Your task to perform on an android device: Open location settings Image 0: 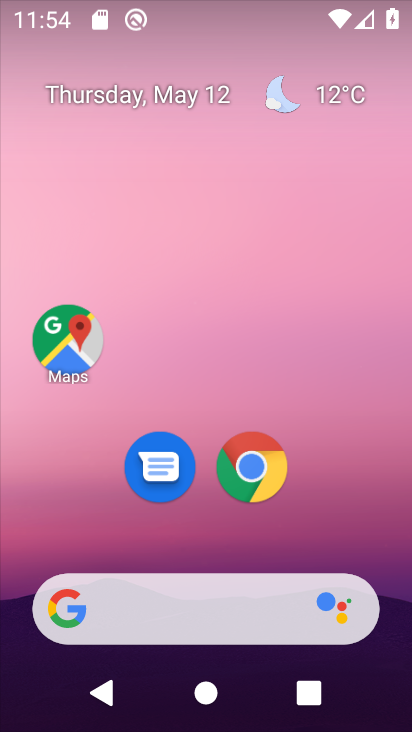
Step 0: drag from (306, 442) to (200, 52)
Your task to perform on an android device: Open location settings Image 1: 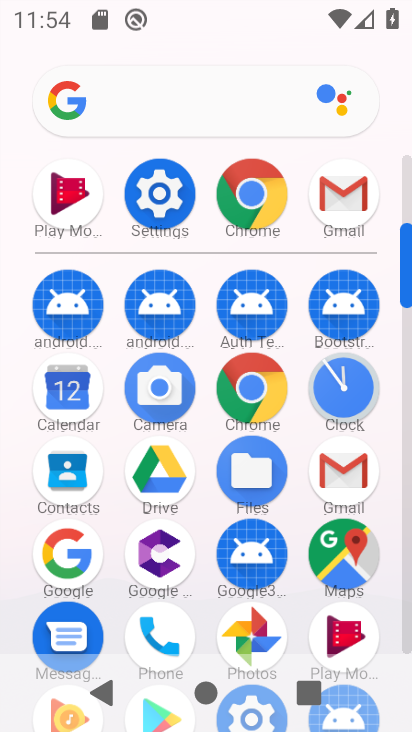
Step 1: click (142, 191)
Your task to perform on an android device: Open location settings Image 2: 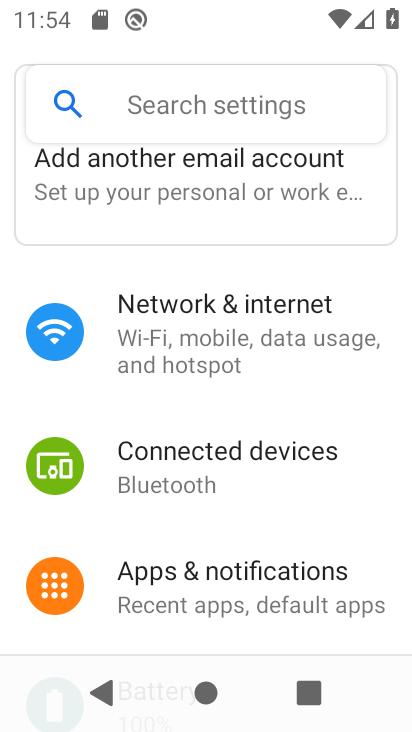
Step 2: drag from (221, 541) to (213, 166)
Your task to perform on an android device: Open location settings Image 3: 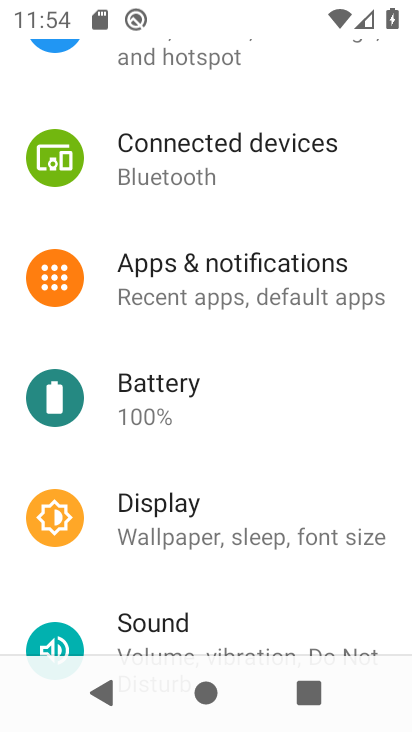
Step 3: drag from (253, 524) to (221, 157)
Your task to perform on an android device: Open location settings Image 4: 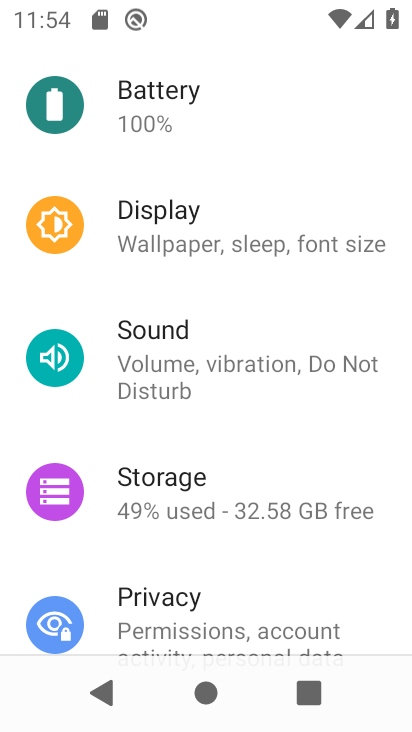
Step 4: drag from (232, 567) to (207, 177)
Your task to perform on an android device: Open location settings Image 5: 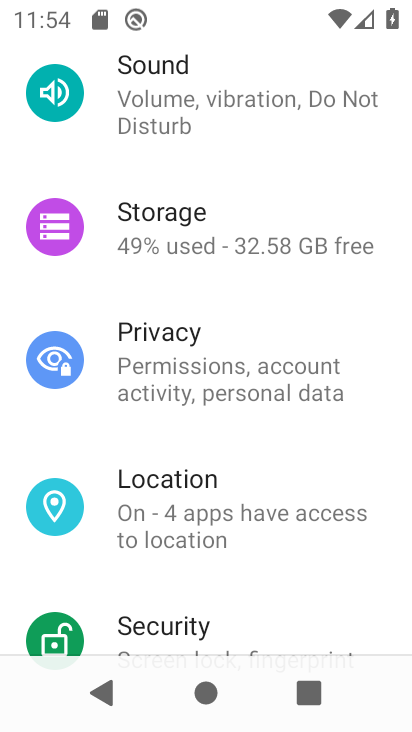
Step 5: click (226, 513)
Your task to perform on an android device: Open location settings Image 6: 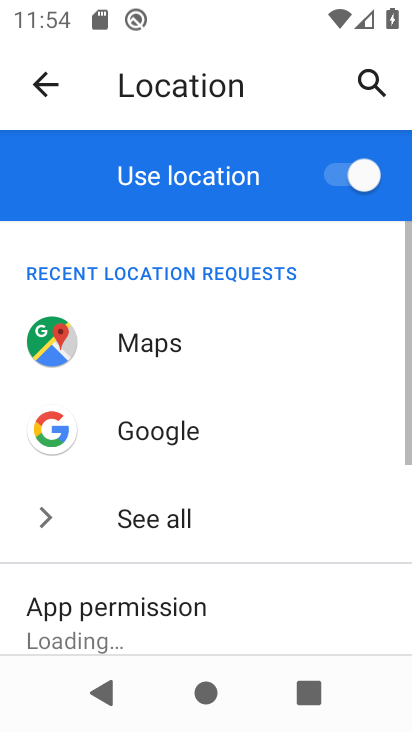
Step 6: task complete